Your task to perform on an android device: delete the emails in spam in the gmail app Image 0: 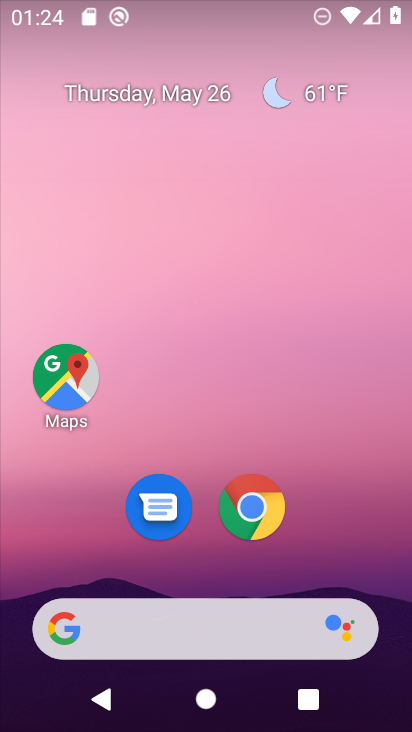
Step 0: drag from (342, 544) to (320, 350)
Your task to perform on an android device: delete the emails in spam in the gmail app Image 1: 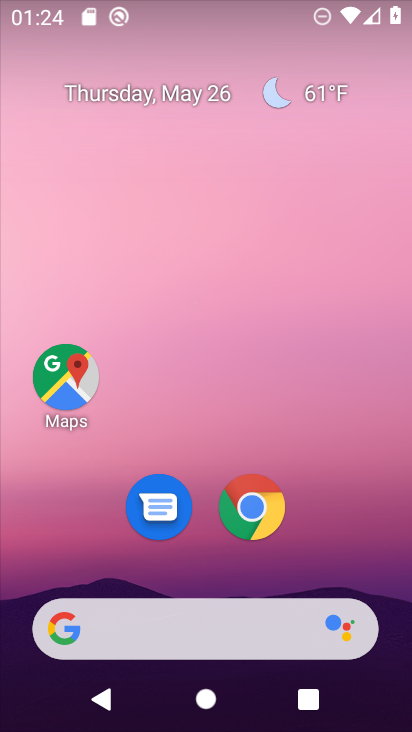
Step 1: drag from (335, 545) to (339, 9)
Your task to perform on an android device: delete the emails in spam in the gmail app Image 2: 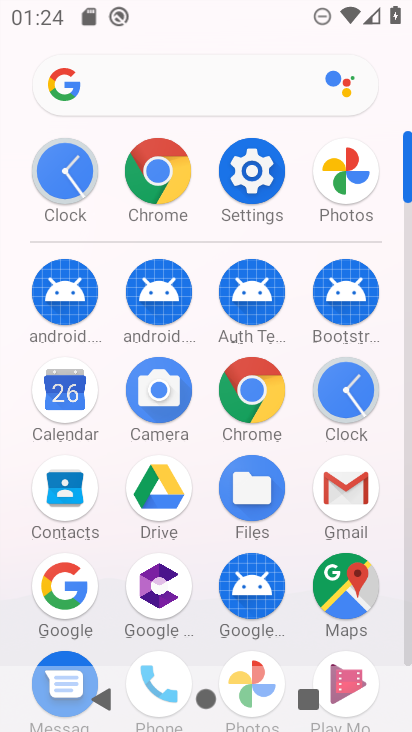
Step 2: click (369, 512)
Your task to perform on an android device: delete the emails in spam in the gmail app Image 3: 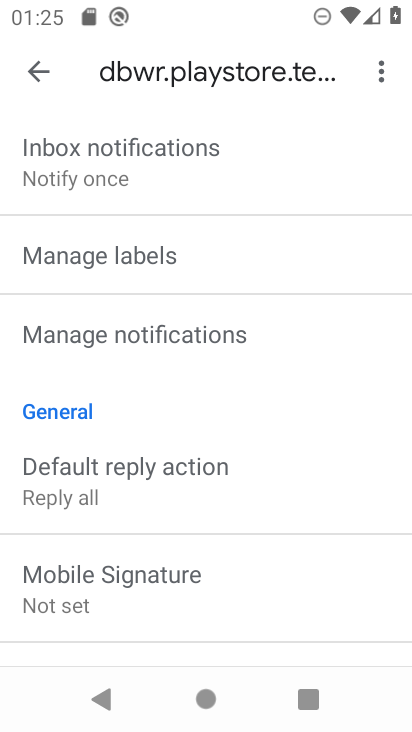
Step 3: click (23, 55)
Your task to perform on an android device: delete the emails in spam in the gmail app Image 4: 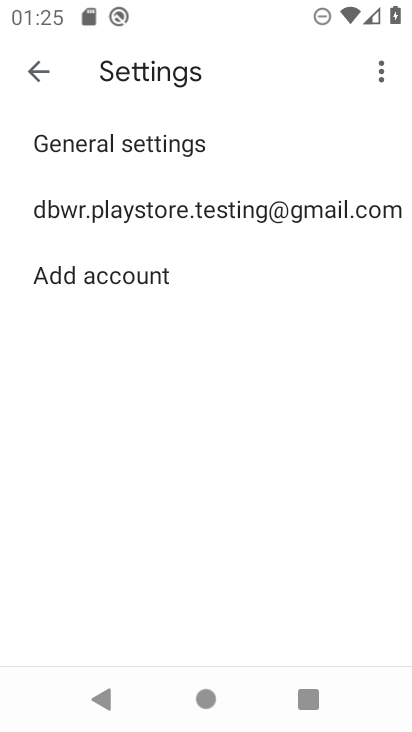
Step 4: click (23, 55)
Your task to perform on an android device: delete the emails in spam in the gmail app Image 5: 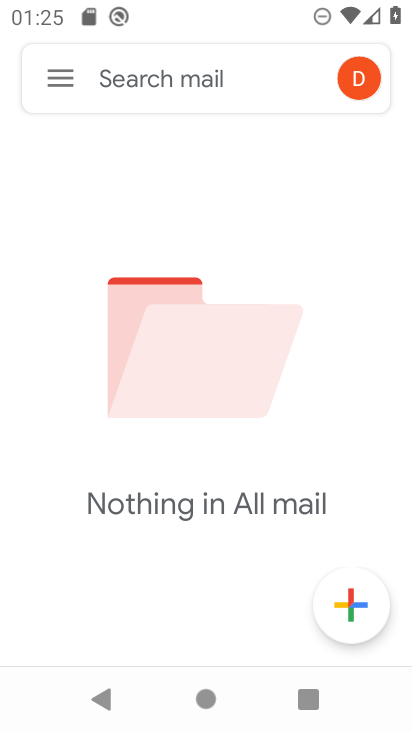
Step 5: click (62, 78)
Your task to perform on an android device: delete the emails in spam in the gmail app Image 6: 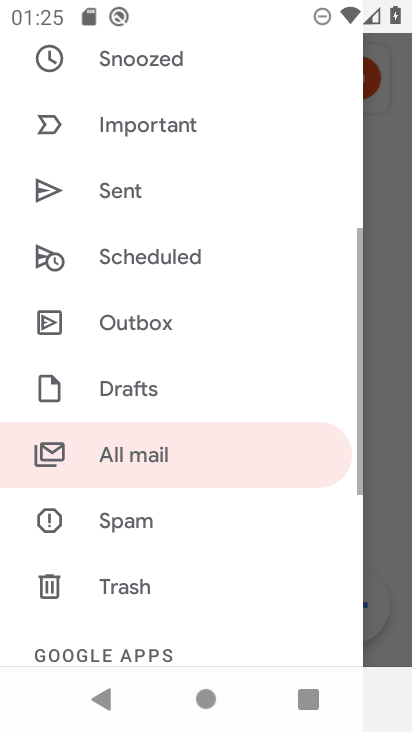
Step 6: drag from (137, 558) to (196, 211)
Your task to perform on an android device: delete the emails in spam in the gmail app Image 7: 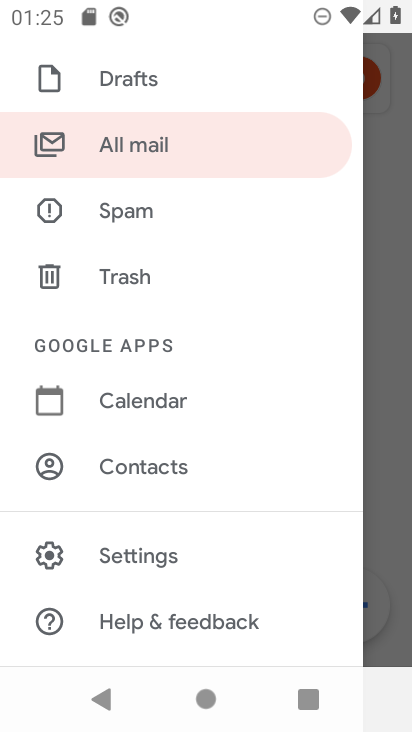
Step 7: click (157, 158)
Your task to perform on an android device: delete the emails in spam in the gmail app Image 8: 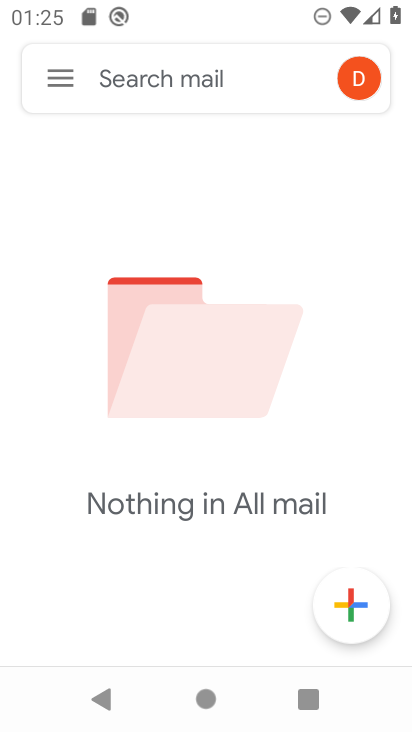
Step 8: task complete